Your task to perform on an android device: What's a good restaurant near me? Image 0: 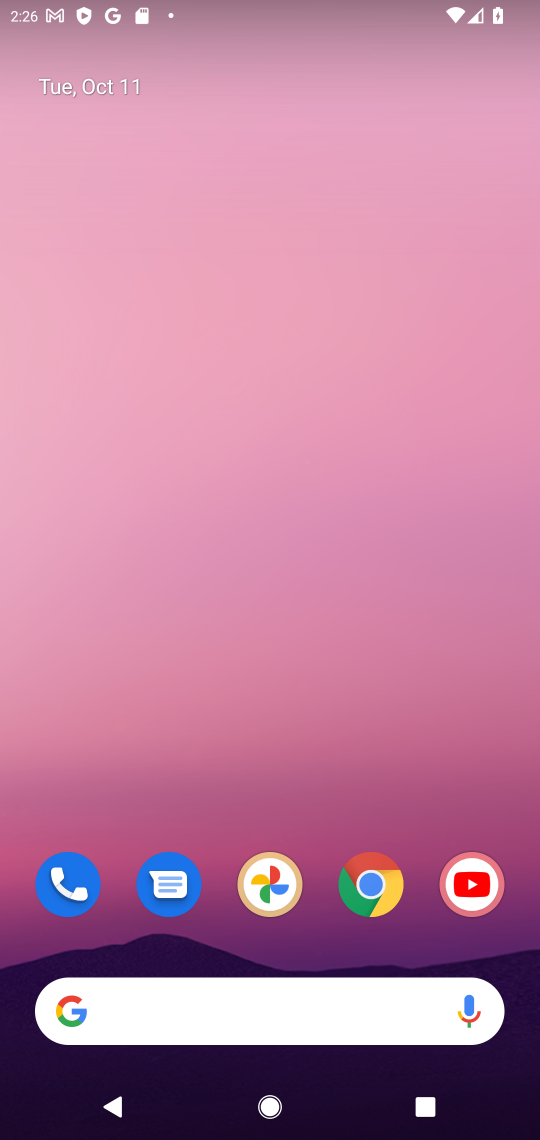
Step 0: click (371, 882)
Your task to perform on an android device: What's a good restaurant near me? Image 1: 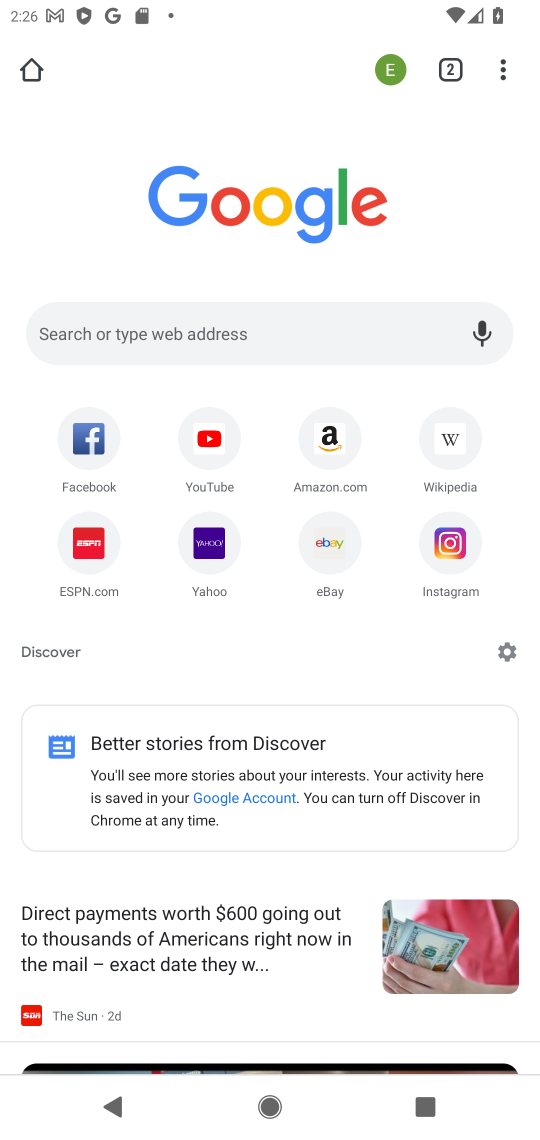
Step 1: click (284, 325)
Your task to perform on an android device: What's a good restaurant near me? Image 2: 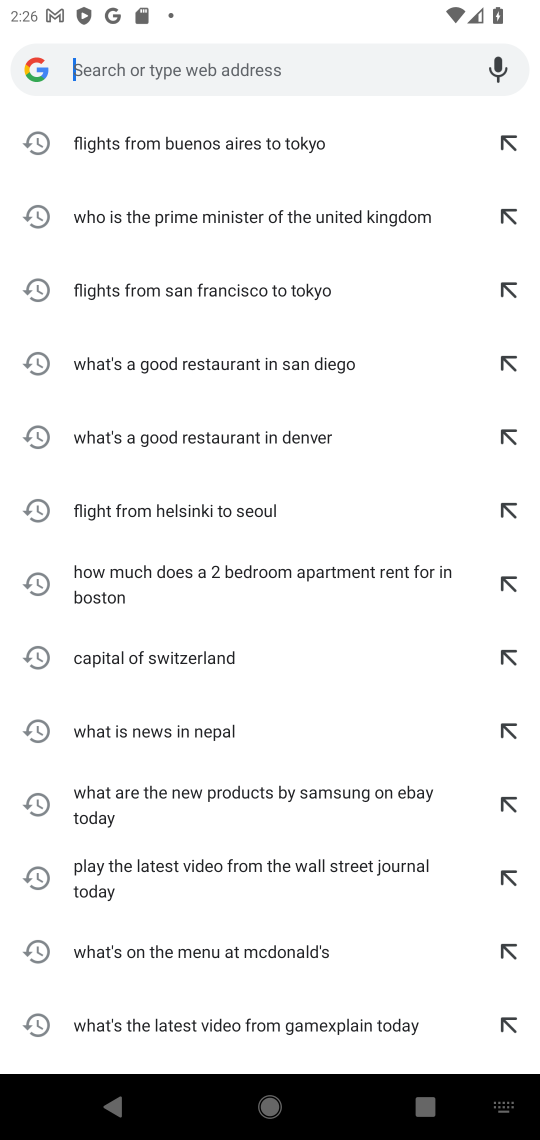
Step 2: type "What's a good restaurant near me"
Your task to perform on an android device: What's a good restaurant near me? Image 3: 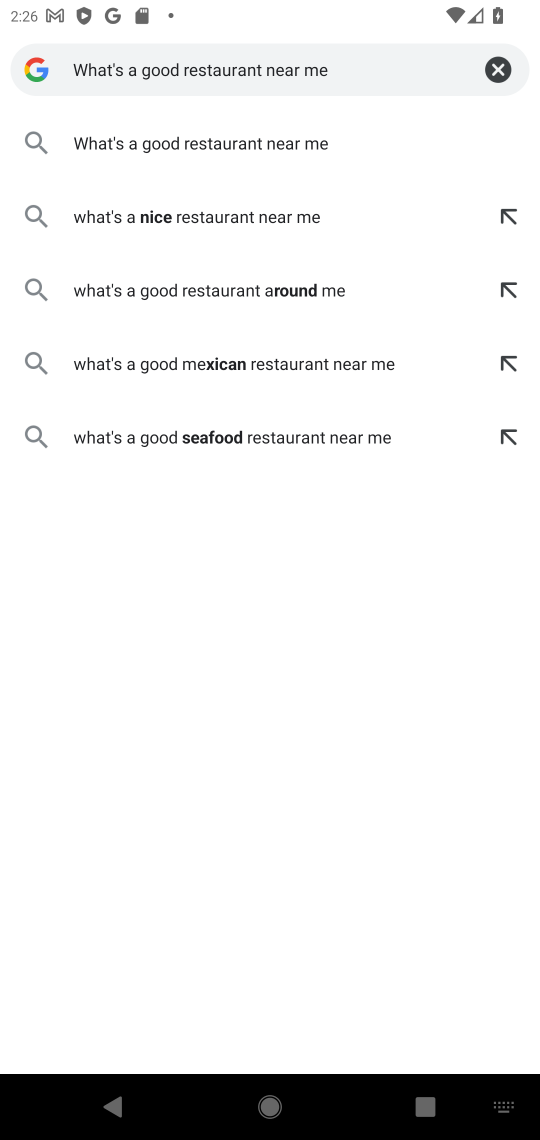
Step 3: click (144, 144)
Your task to perform on an android device: What's a good restaurant near me? Image 4: 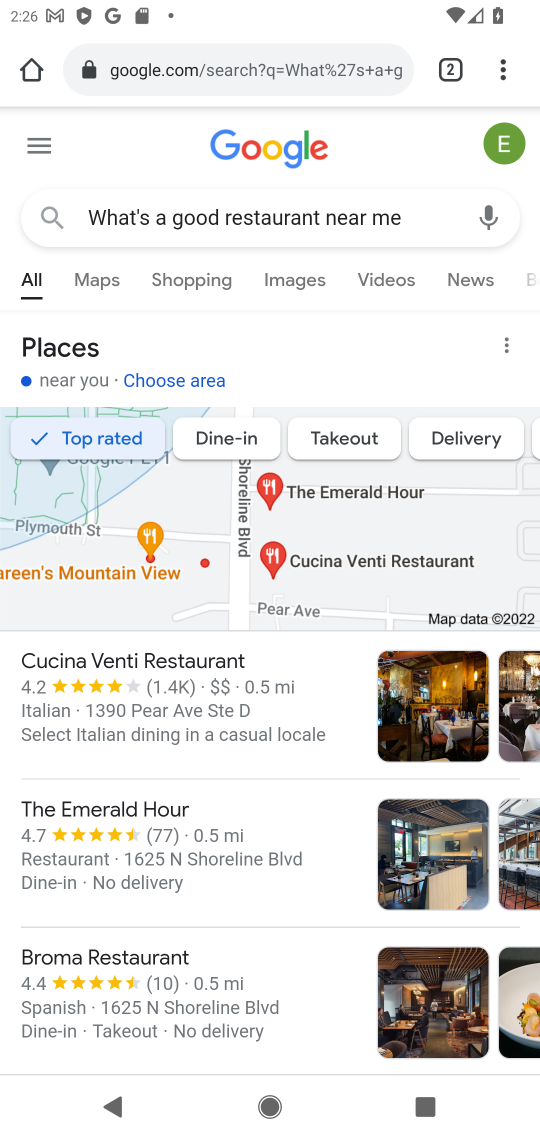
Step 4: task complete